Your task to perform on an android device: Go to Google Image 0: 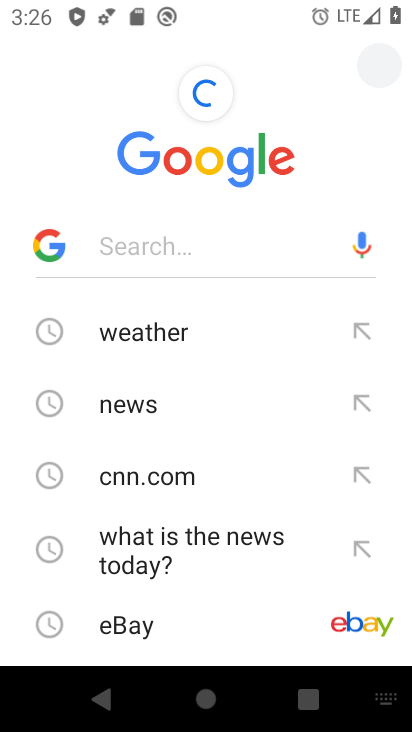
Step 0: drag from (239, 506) to (212, 228)
Your task to perform on an android device: Go to Google Image 1: 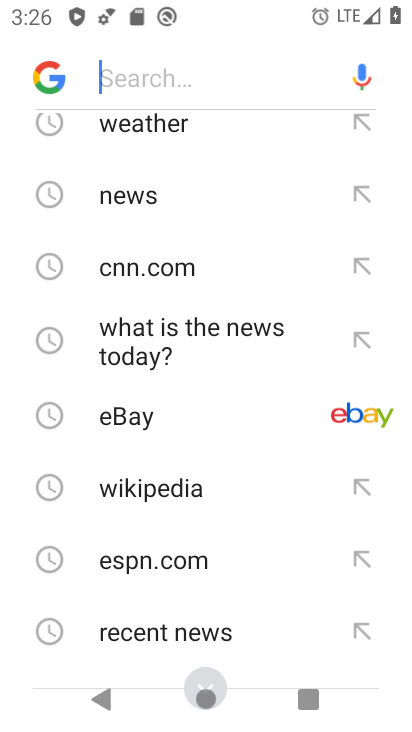
Step 1: task complete